Your task to perform on an android device: Search for "usb-a to usb-b" on target.com, select the first entry, add it to the cart, then select checkout. Image 0: 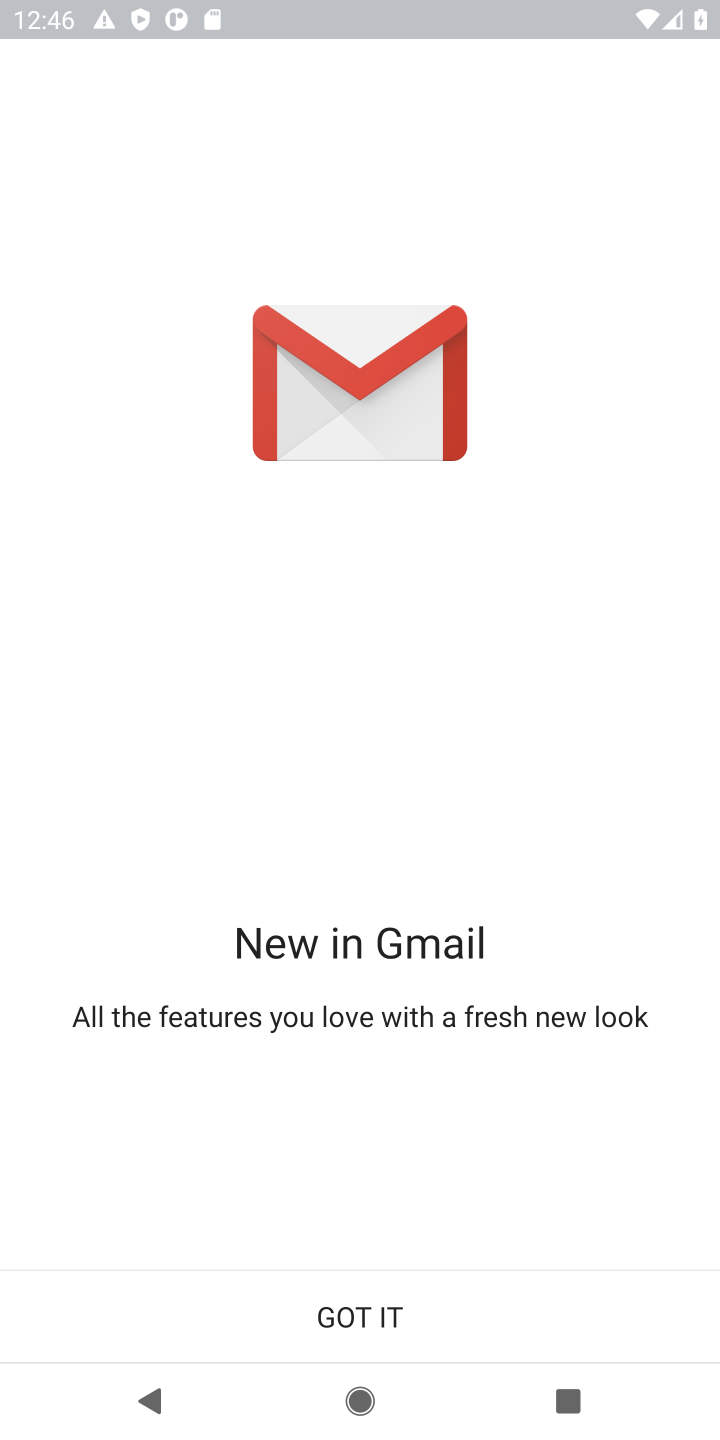
Step 0: press home button
Your task to perform on an android device: Search for "usb-a to usb-b" on target.com, select the first entry, add it to the cart, then select checkout. Image 1: 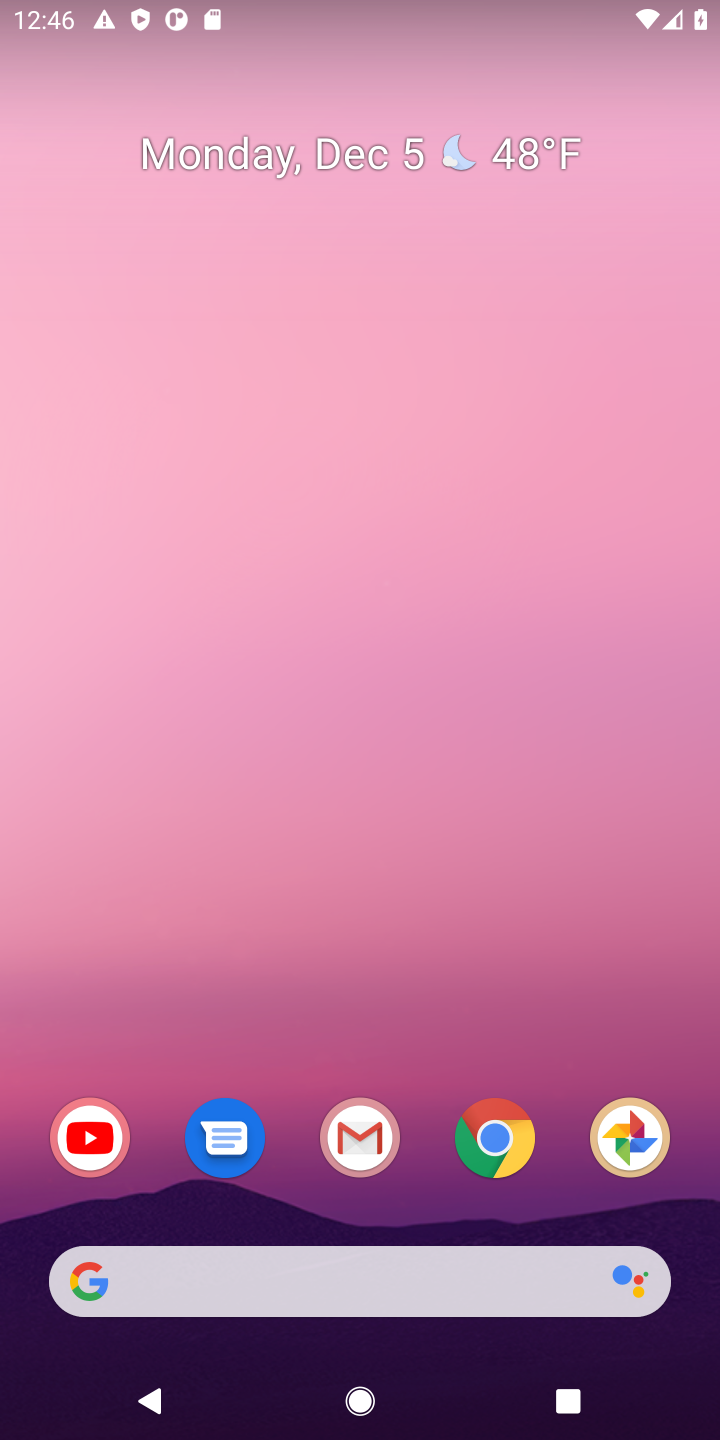
Step 1: click (475, 1135)
Your task to perform on an android device: Search for "usb-a to usb-b" on target.com, select the first entry, add it to the cart, then select checkout. Image 2: 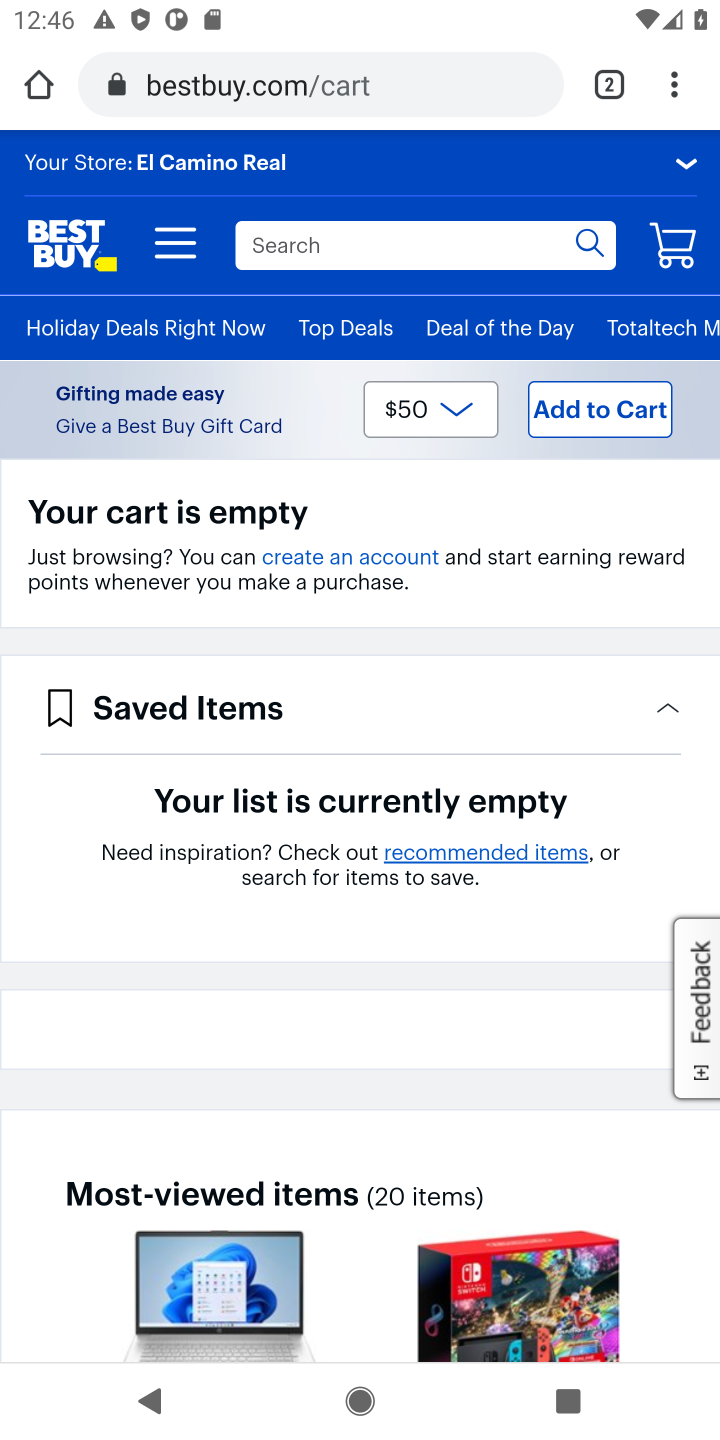
Step 2: click (461, 239)
Your task to perform on an android device: Search for "usb-a to usb-b" on target.com, select the first entry, add it to the cart, then select checkout. Image 3: 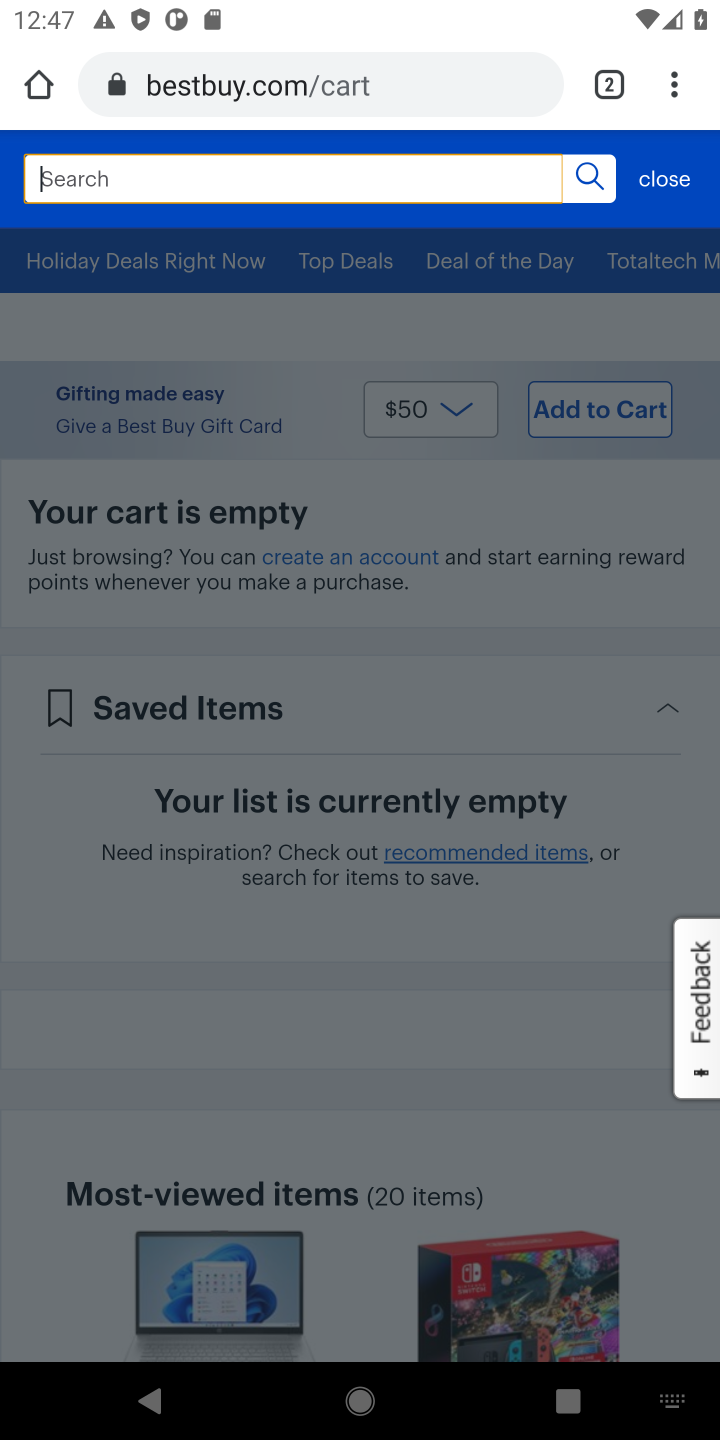
Step 3: type "usb-a to usb-b"
Your task to perform on an android device: Search for "usb-a to usb-b" on target.com, select the first entry, add it to the cart, then select checkout. Image 4: 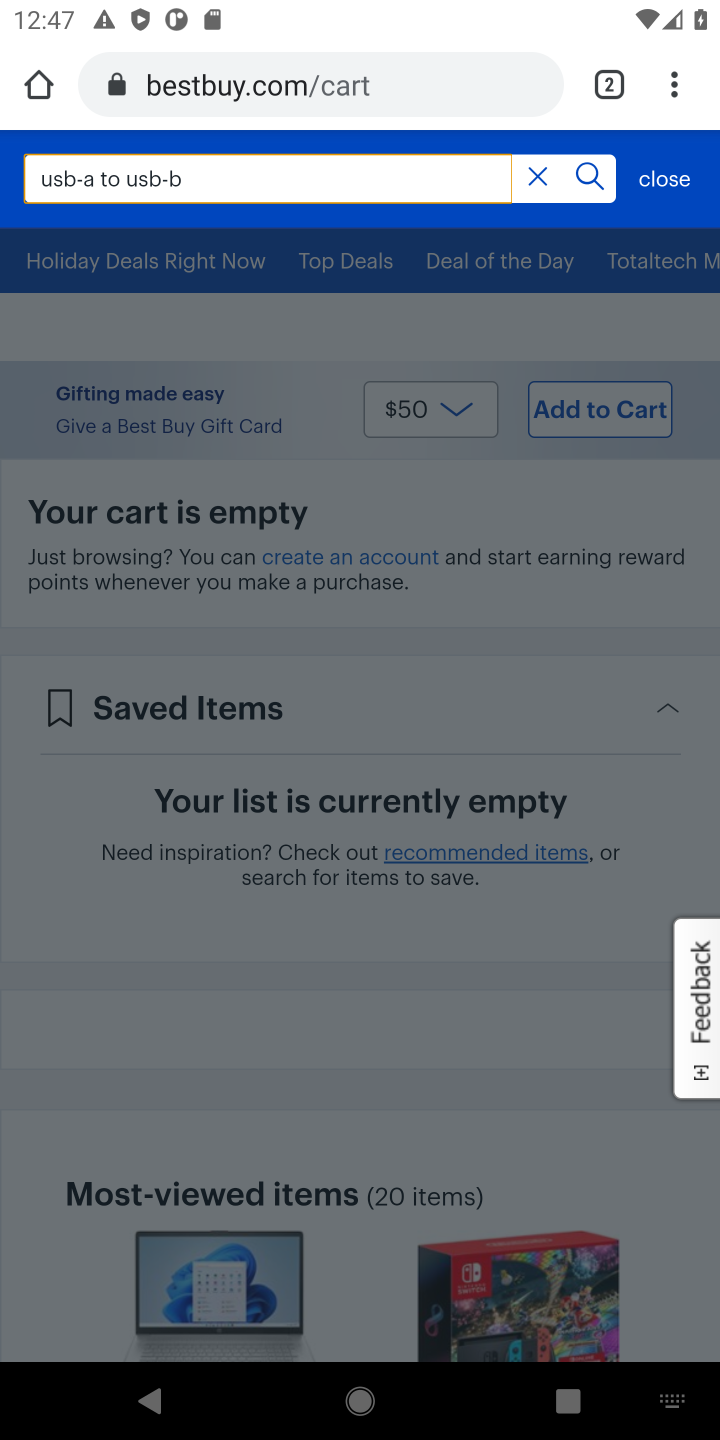
Step 4: click (605, 178)
Your task to perform on an android device: Search for "usb-a to usb-b" on target.com, select the first entry, add it to the cart, then select checkout. Image 5: 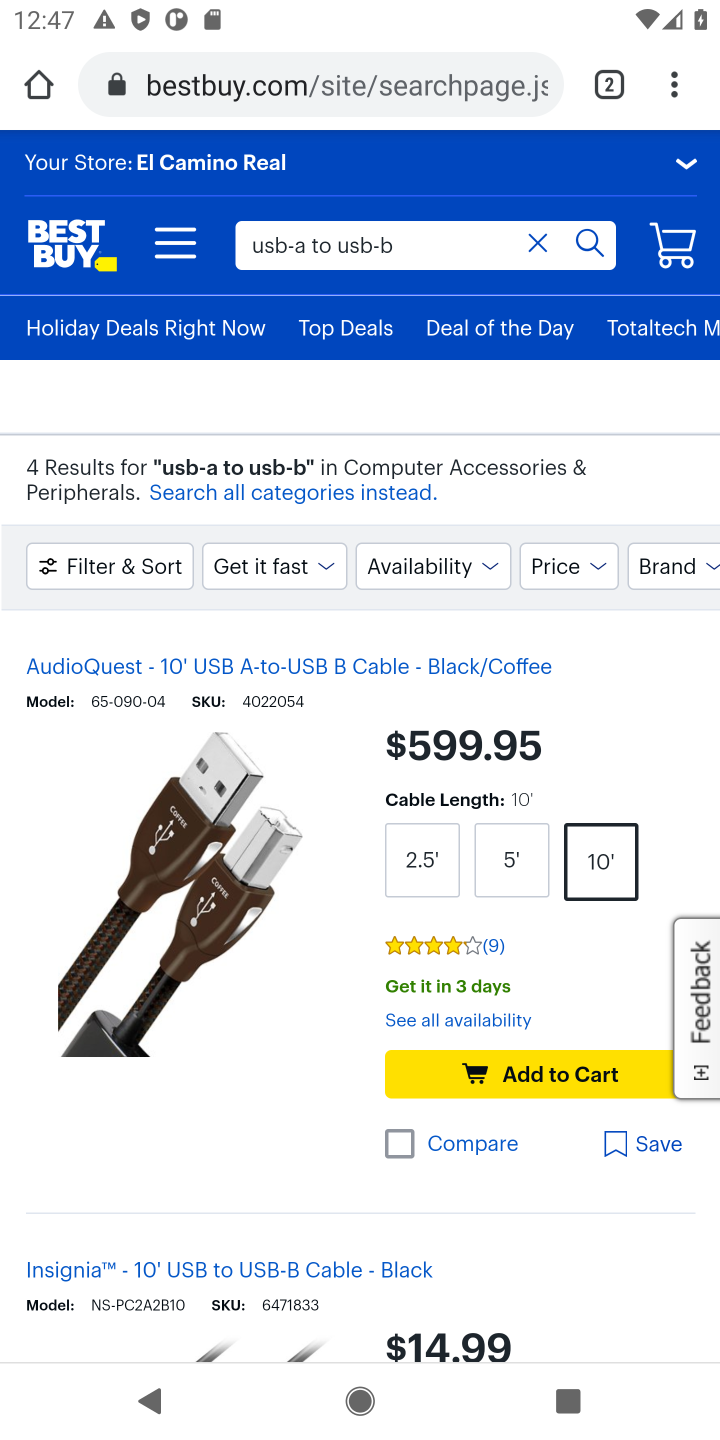
Step 5: click (556, 1084)
Your task to perform on an android device: Search for "usb-a to usb-b" on target.com, select the first entry, add it to the cart, then select checkout. Image 6: 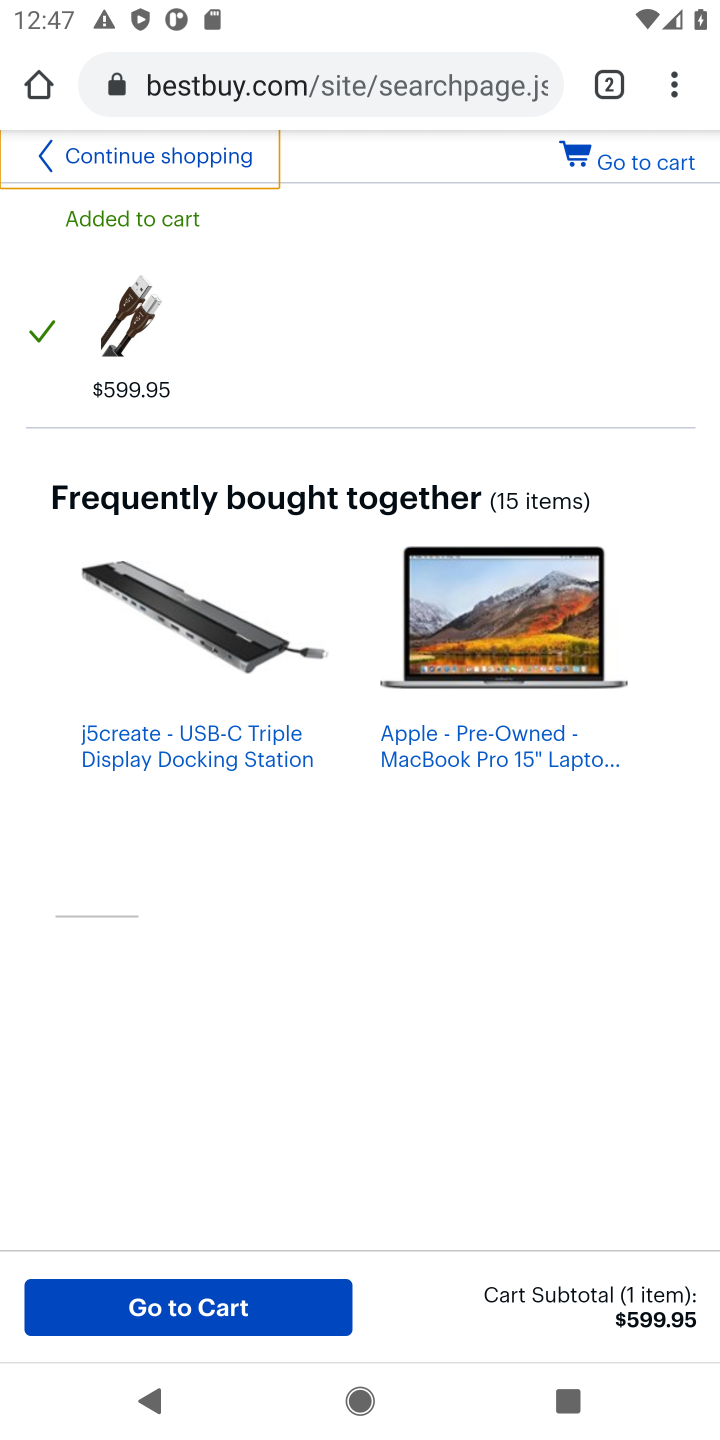
Step 6: click (232, 1320)
Your task to perform on an android device: Search for "usb-a to usb-b" on target.com, select the first entry, add it to the cart, then select checkout. Image 7: 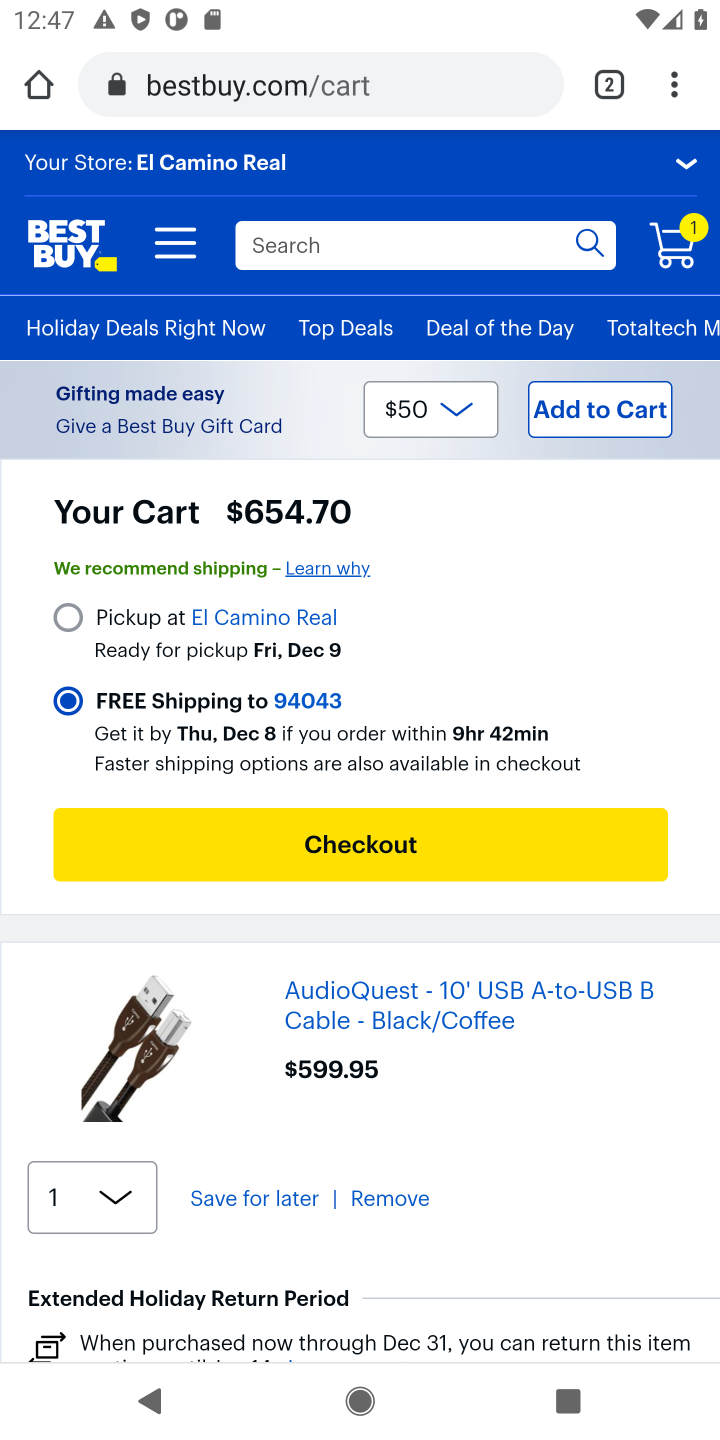
Step 7: click (349, 845)
Your task to perform on an android device: Search for "usb-a to usb-b" on target.com, select the first entry, add it to the cart, then select checkout. Image 8: 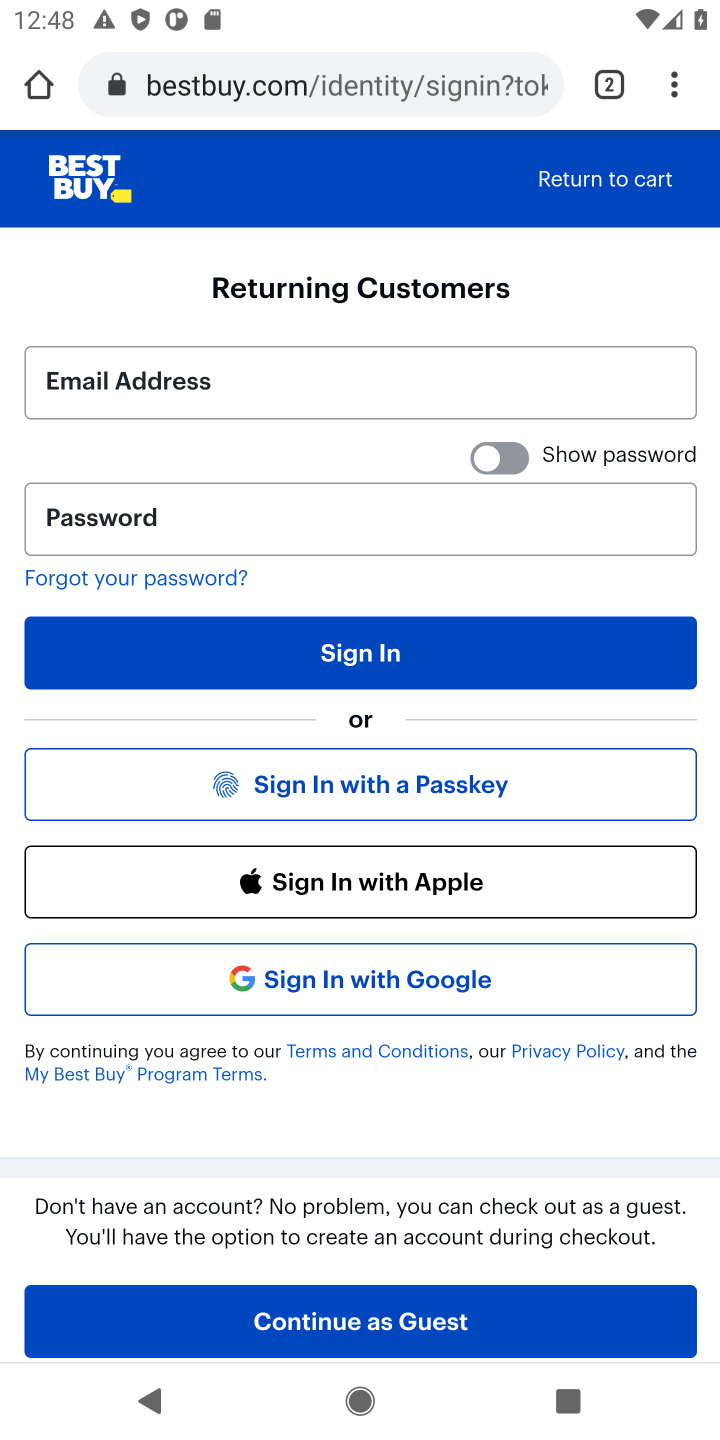
Step 8: task complete